Your task to perform on an android device: Open the map Image 0: 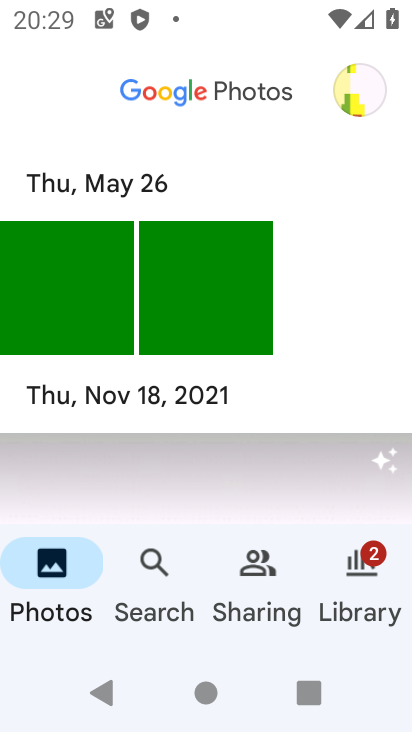
Step 0: press home button
Your task to perform on an android device: Open the map Image 1: 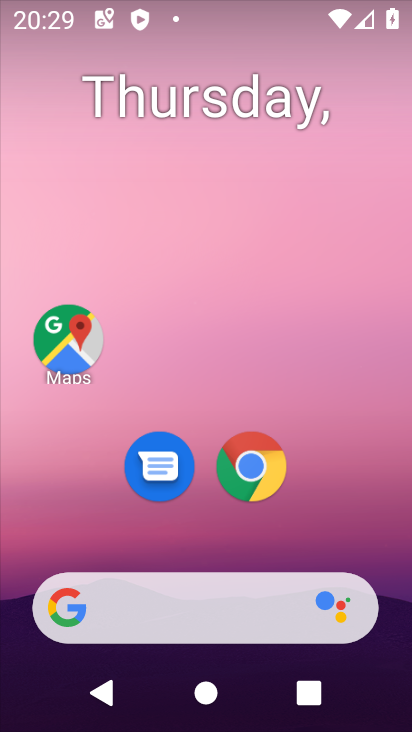
Step 1: click (93, 346)
Your task to perform on an android device: Open the map Image 2: 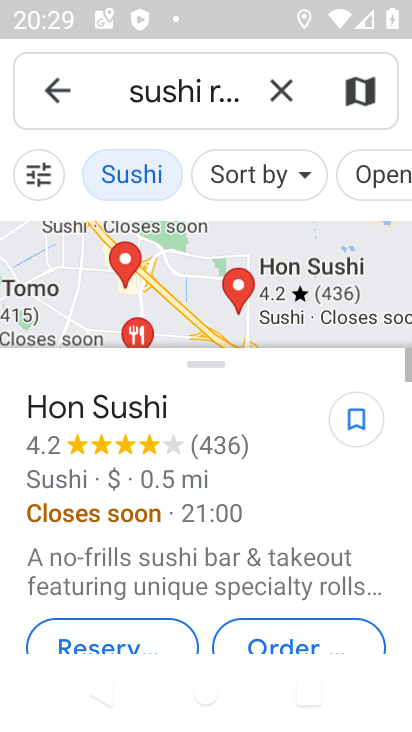
Step 2: click (285, 94)
Your task to perform on an android device: Open the map Image 3: 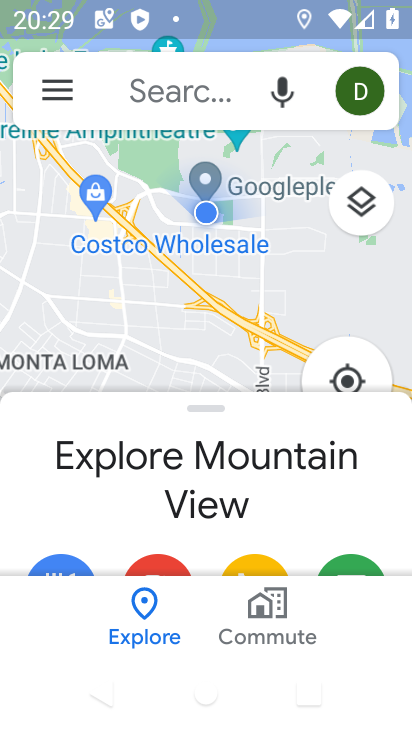
Step 3: task complete